Your task to perform on an android device: Go to notification settings Image 0: 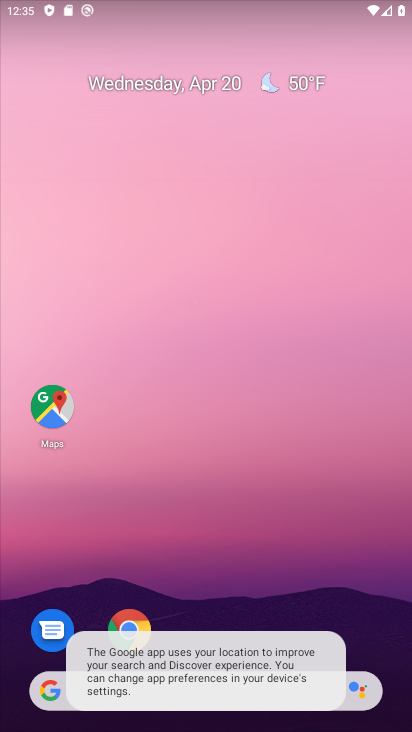
Step 0: drag from (235, 577) to (230, 164)
Your task to perform on an android device: Go to notification settings Image 1: 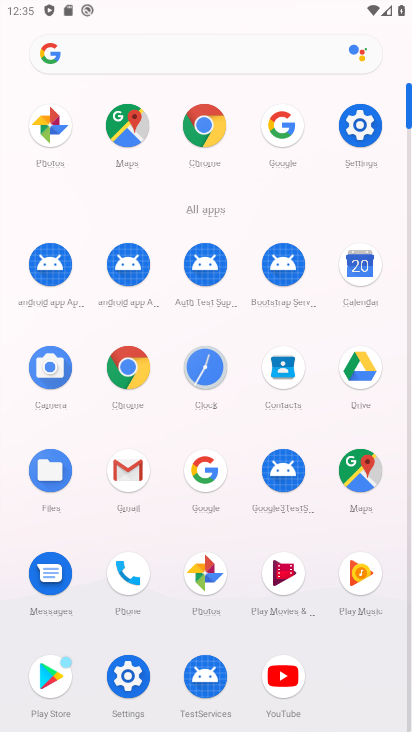
Step 1: click (363, 122)
Your task to perform on an android device: Go to notification settings Image 2: 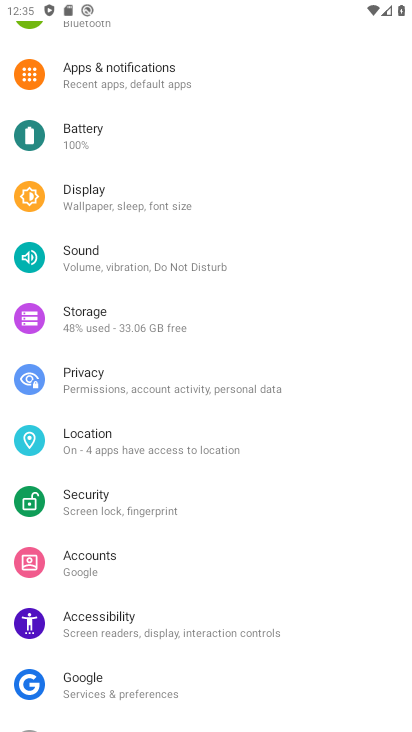
Step 2: click (100, 76)
Your task to perform on an android device: Go to notification settings Image 3: 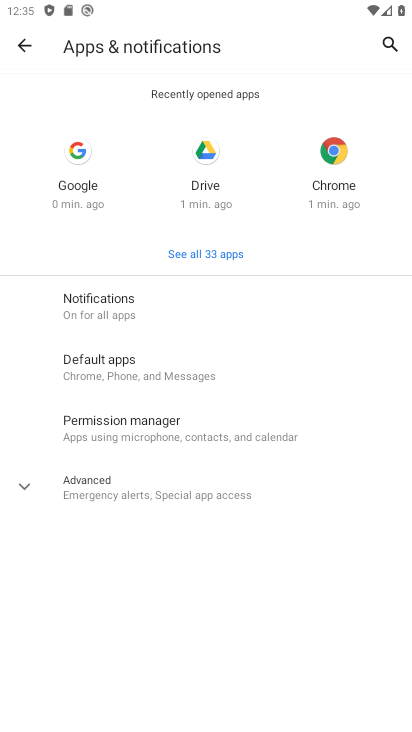
Step 3: click (109, 305)
Your task to perform on an android device: Go to notification settings Image 4: 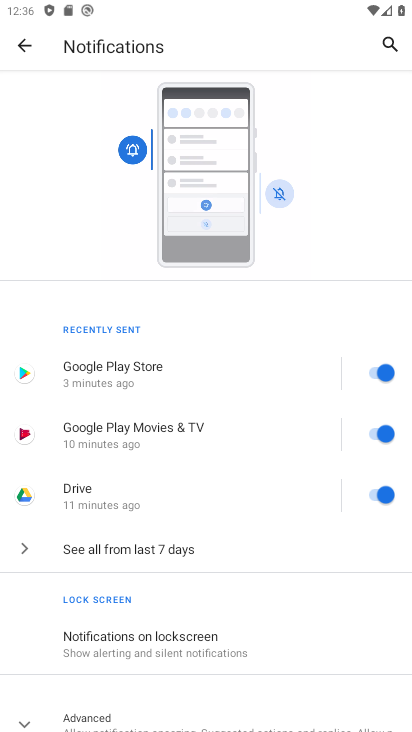
Step 4: task complete